Your task to perform on an android device: turn off picture-in-picture Image 0: 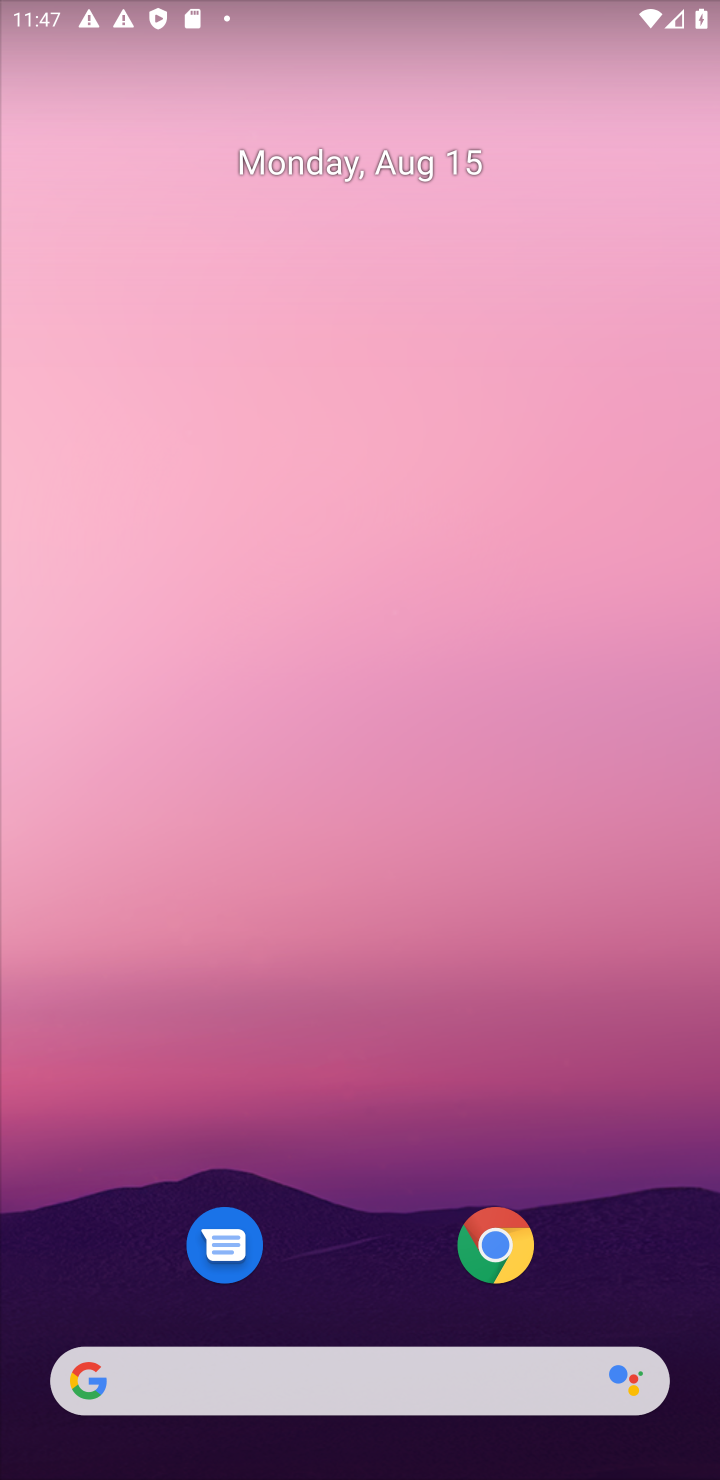
Step 0: drag from (347, 632) to (339, 332)
Your task to perform on an android device: turn off picture-in-picture Image 1: 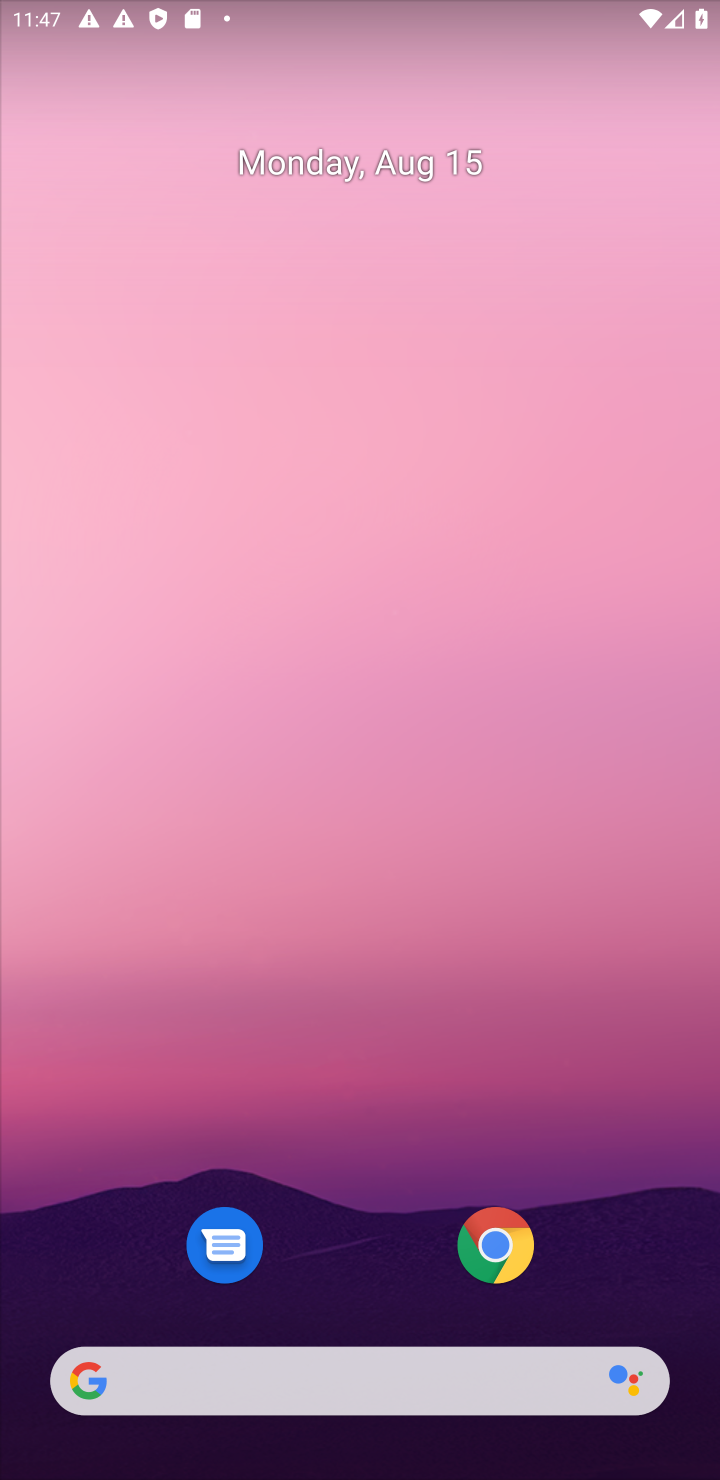
Step 1: drag from (306, 710) to (341, 62)
Your task to perform on an android device: turn off picture-in-picture Image 2: 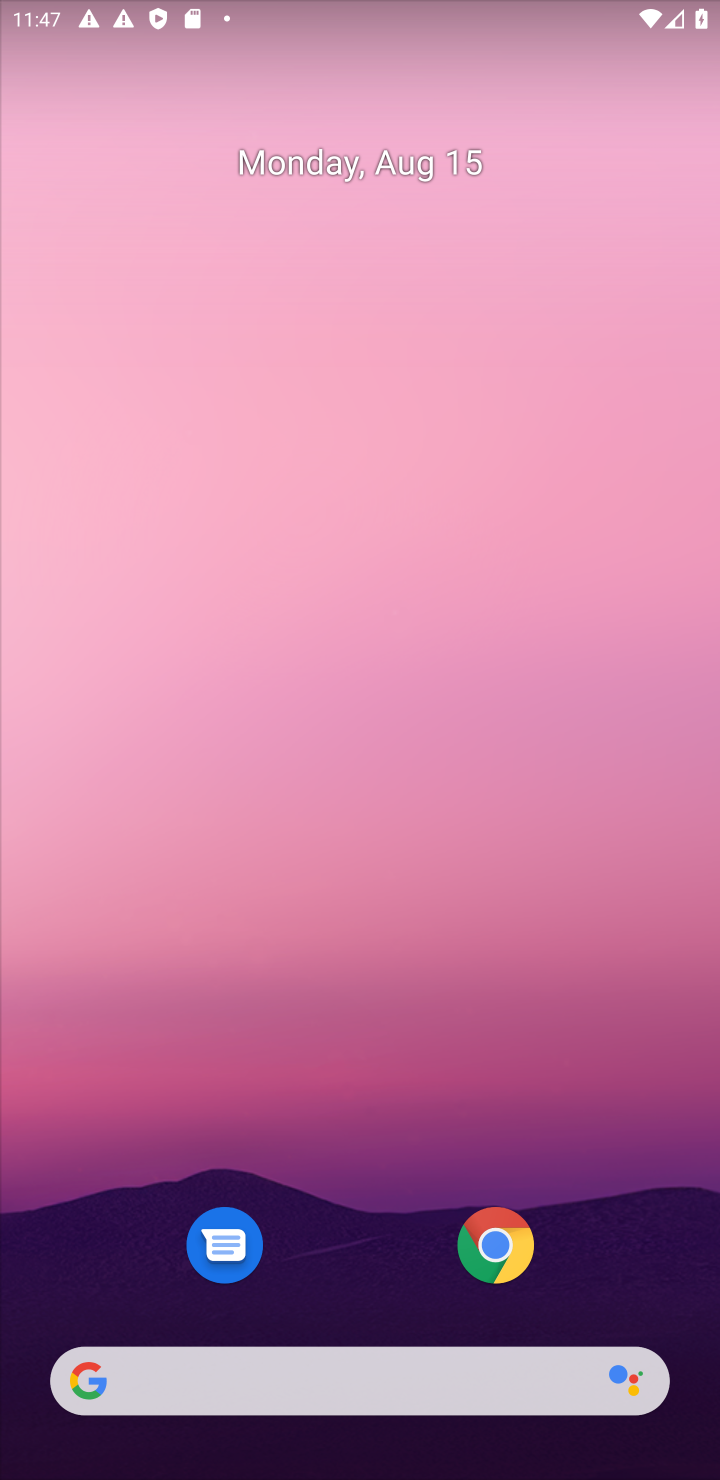
Step 2: drag from (377, 957) to (363, 549)
Your task to perform on an android device: turn off picture-in-picture Image 3: 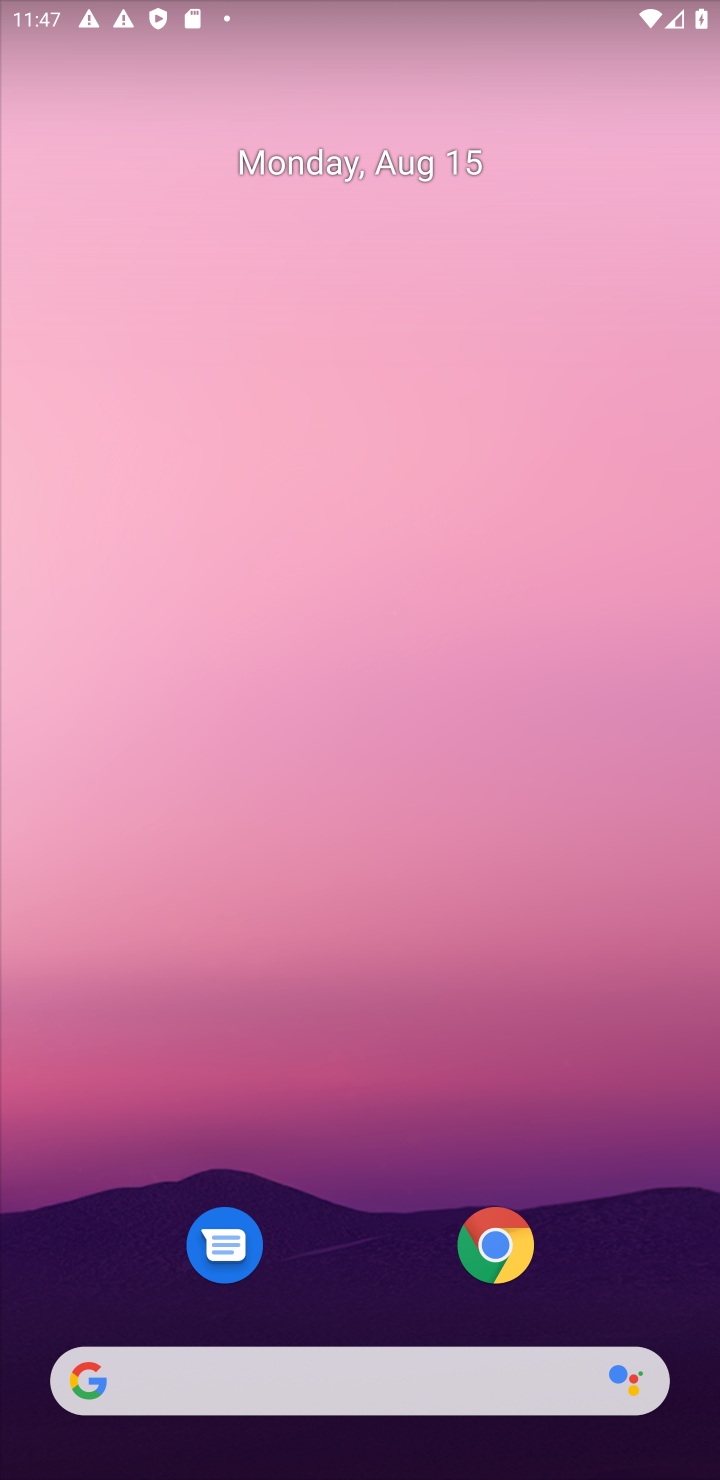
Step 3: drag from (371, 1002) to (370, 11)
Your task to perform on an android device: turn off picture-in-picture Image 4: 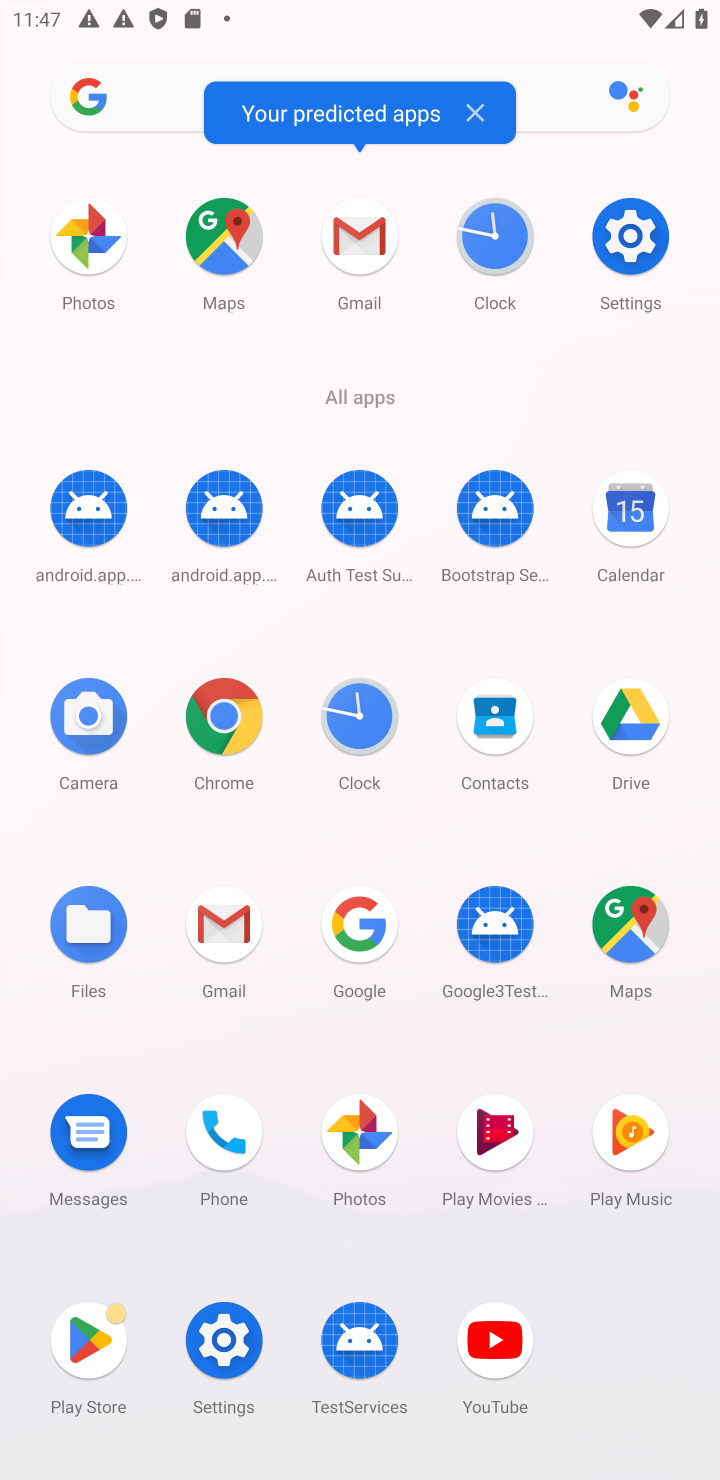
Step 4: click (631, 244)
Your task to perform on an android device: turn off picture-in-picture Image 5: 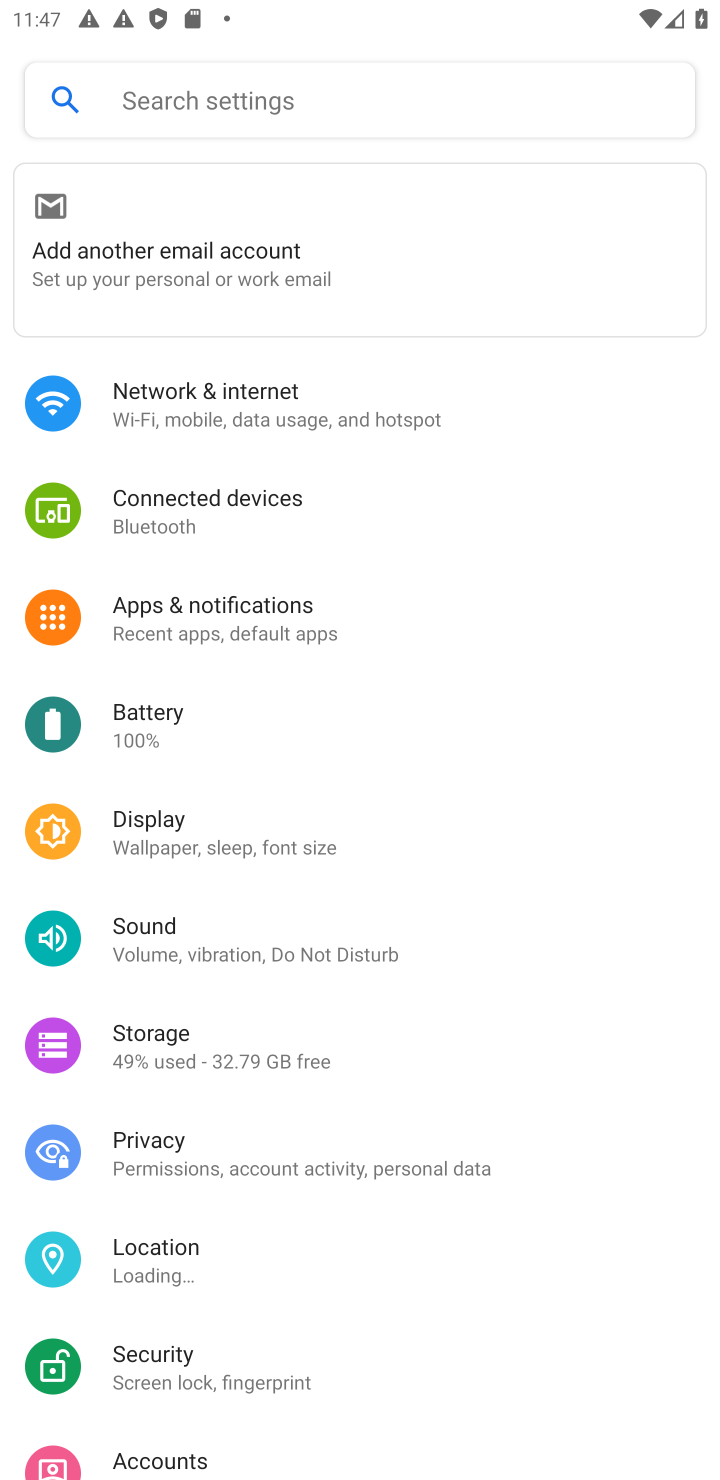
Step 5: click (262, 602)
Your task to perform on an android device: turn off picture-in-picture Image 6: 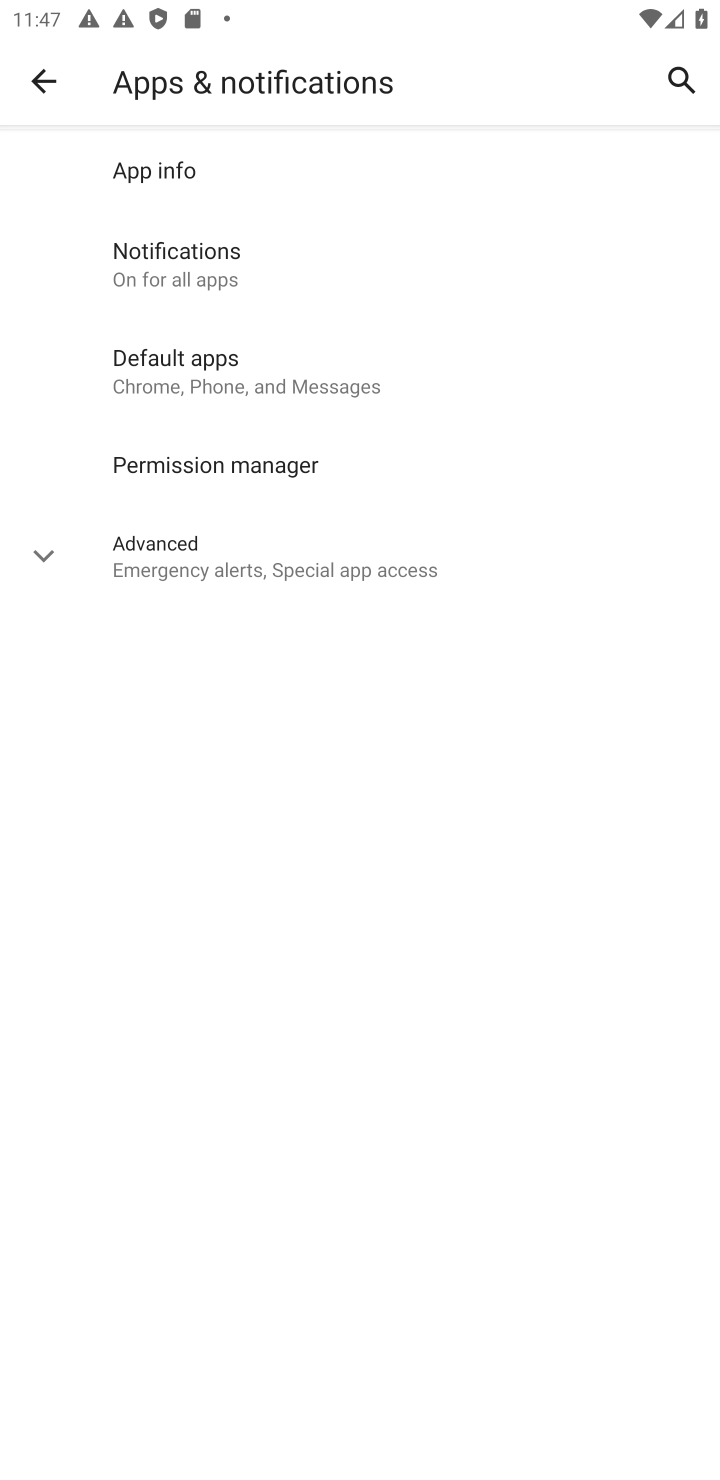
Step 6: click (254, 832)
Your task to perform on an android device: turn off picture-in-picture Image 7: 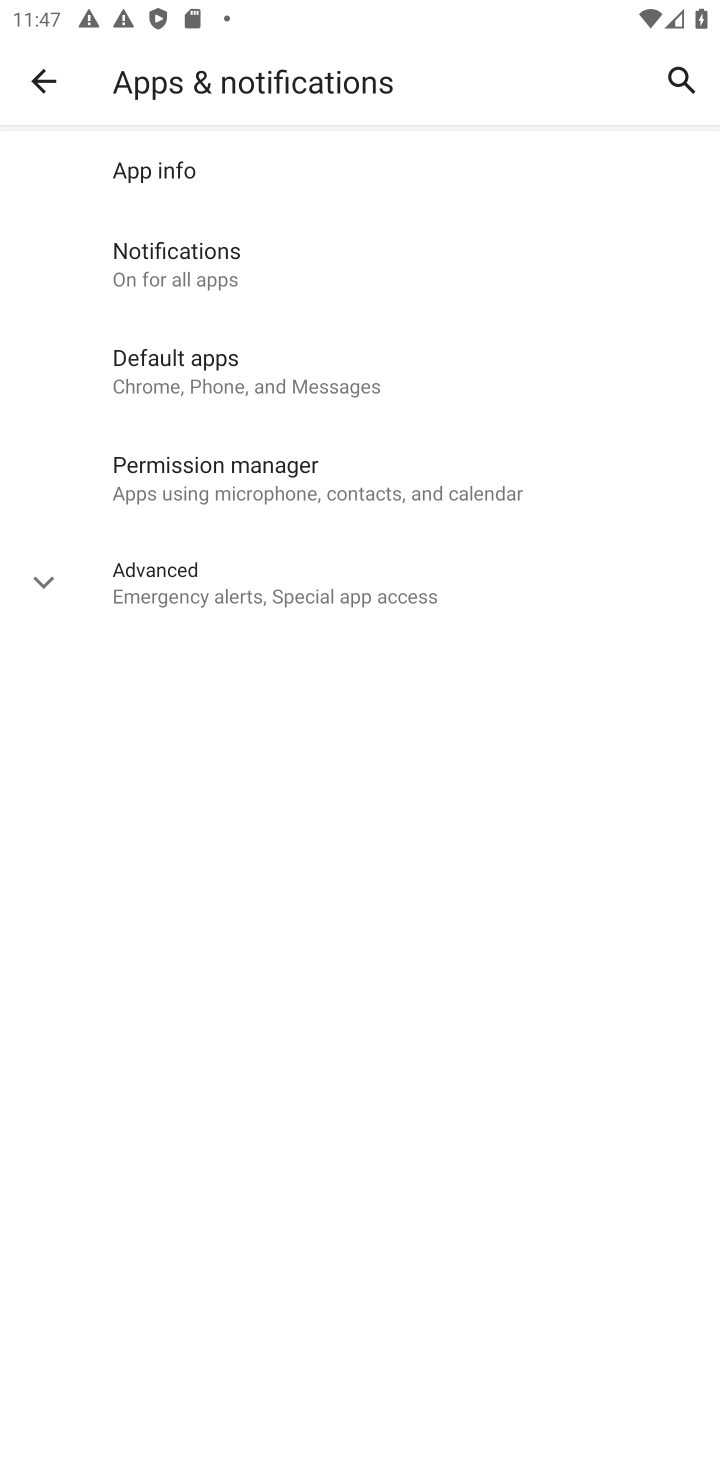
Step 7: click (235, 590)
Your task to perform on an android device: turn off picture-in-picture Image 8: 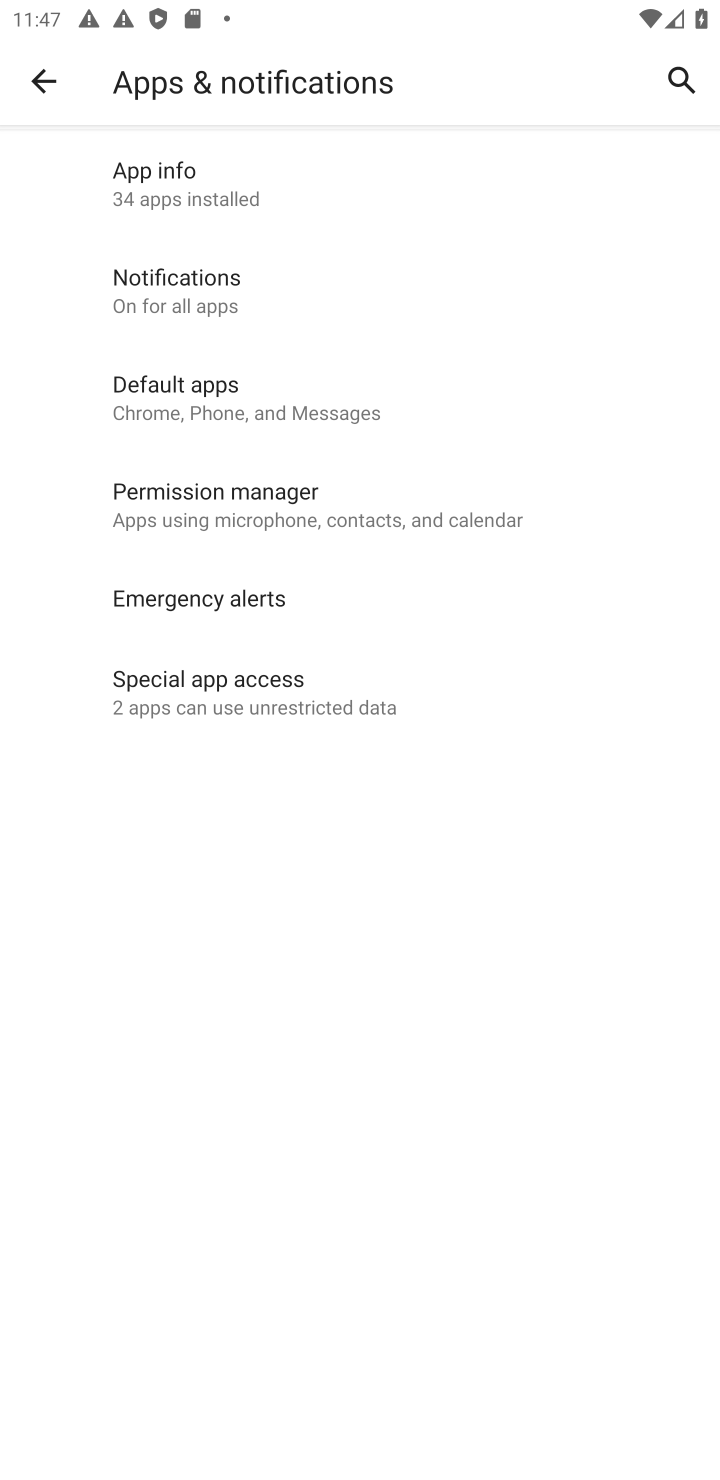
Step 8: click (230, 667)
Your task to perform on an android device: turn off picture-in-picture Image 9: 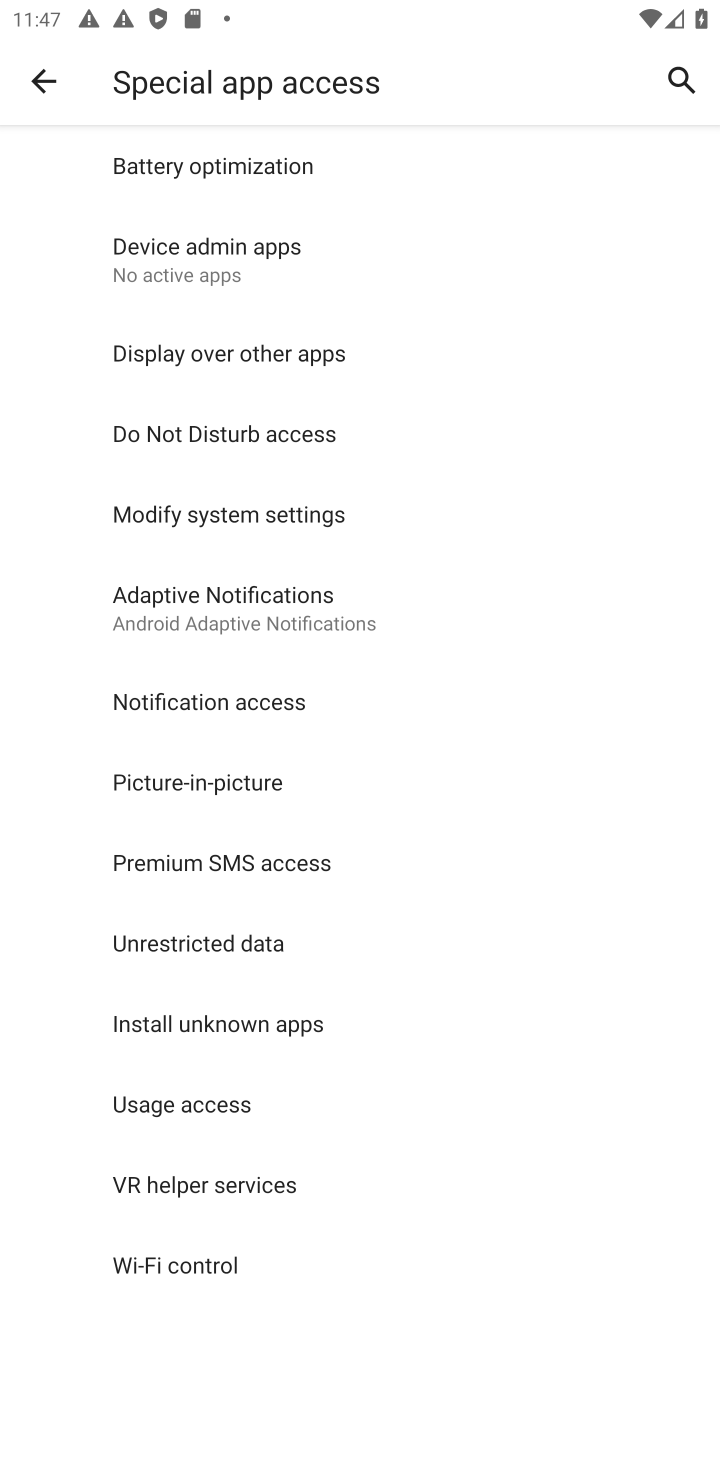
Step 9: click (255, 791)
Your task to perform on an android device: turn off picture-in-picture Image 10: 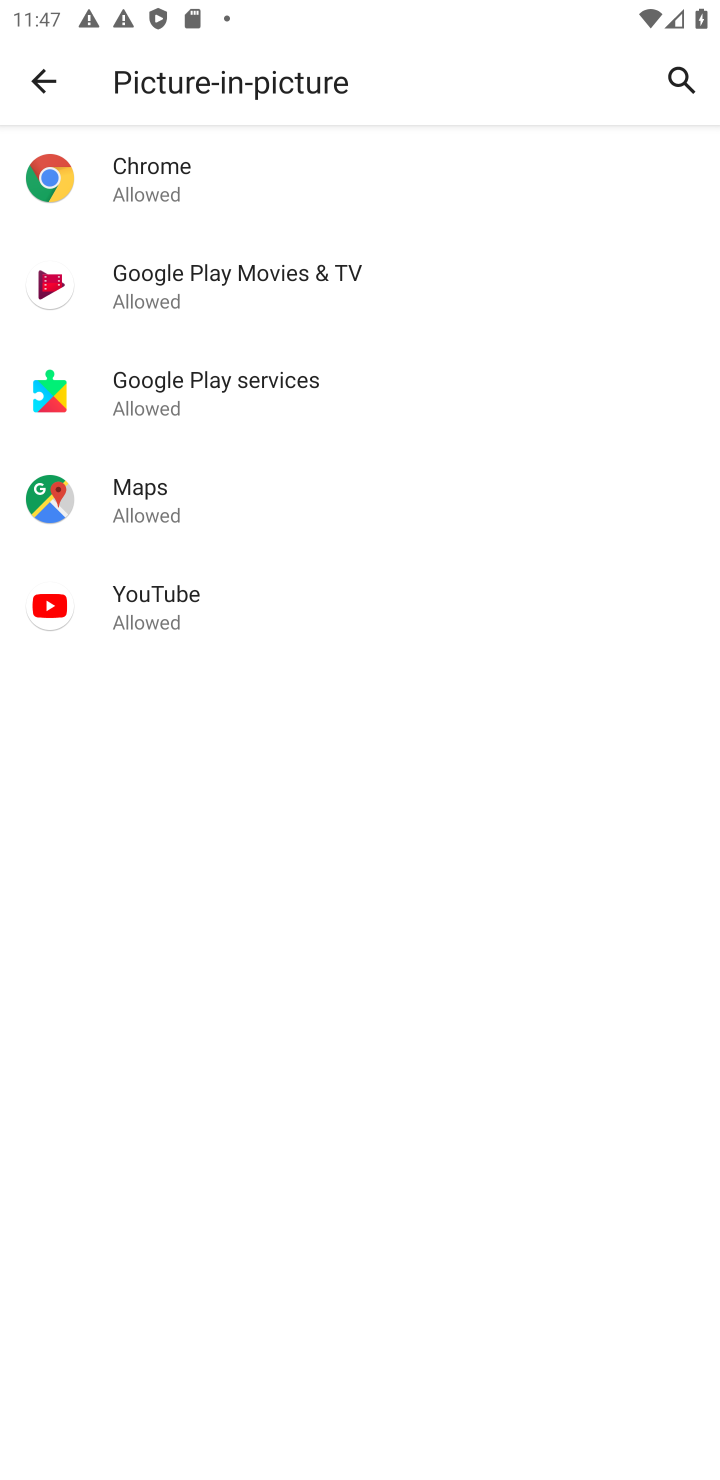
Step 10: click (138, 638)
Your task to perform on an android device: turn off picture-in-picture Image 11: 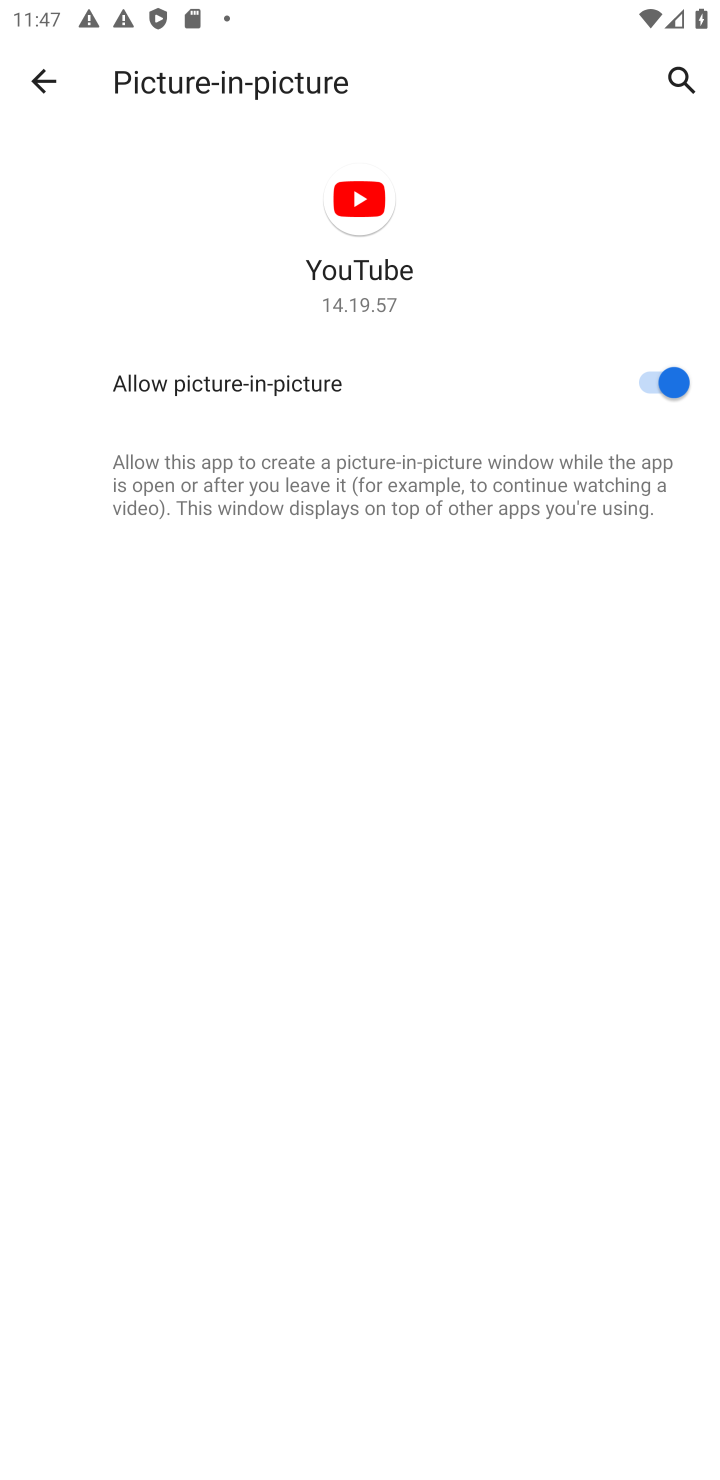
Step 11: click (655, 374)
Your task to perform on an android device: turn off picture-in-picture Image 12: 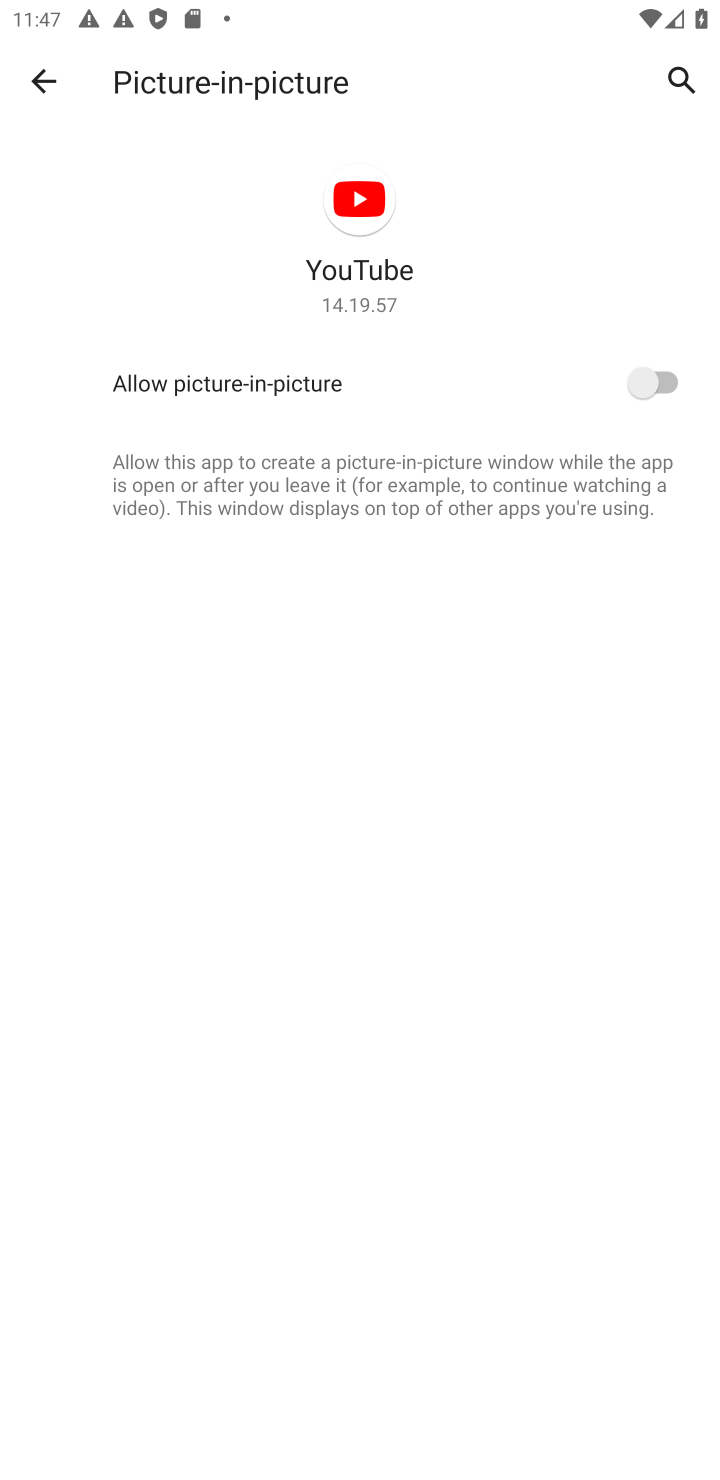
Step 12: task complete